Your task to perform on an android device: Open Chrome and go to the settings page Image 0: 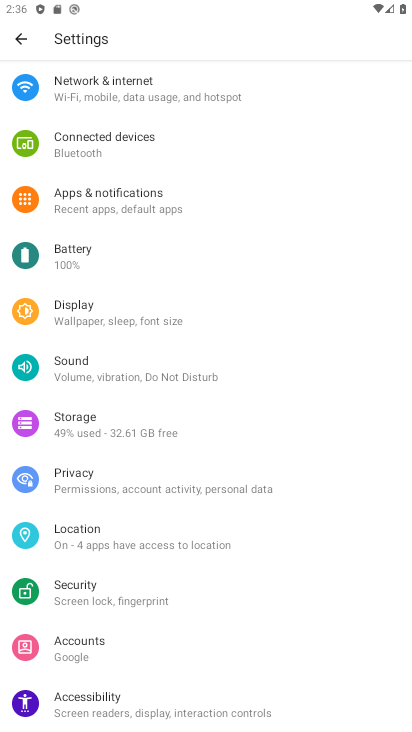
Step 0: press home button
Your task to perform on an android device: Open Chrome and go to the settings page Image 1: 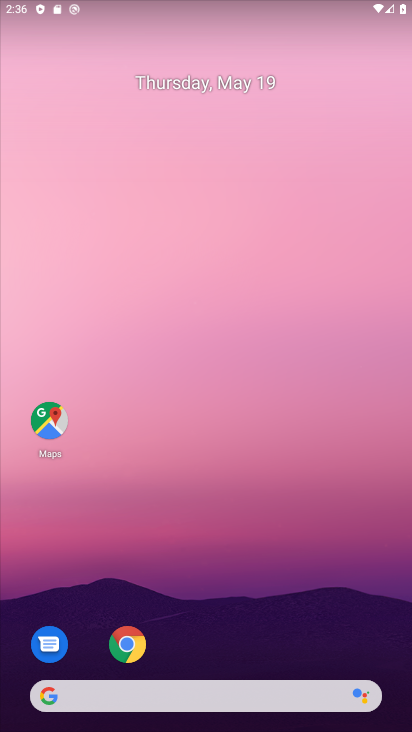
Step 1: drag from (244, 595) to (214, 197)
Your task to perform on an android device: Open Chrome and go to the settings page Image 2: 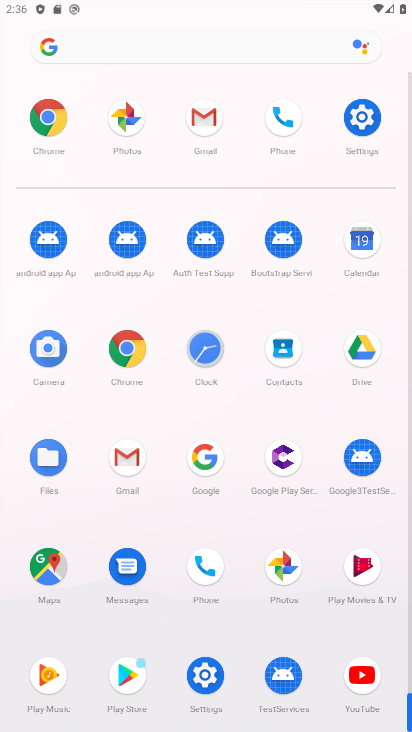
Step 2: click (42, 111)
Your task to perform on an android device: Open Chrome and go to the settings page Image 3: 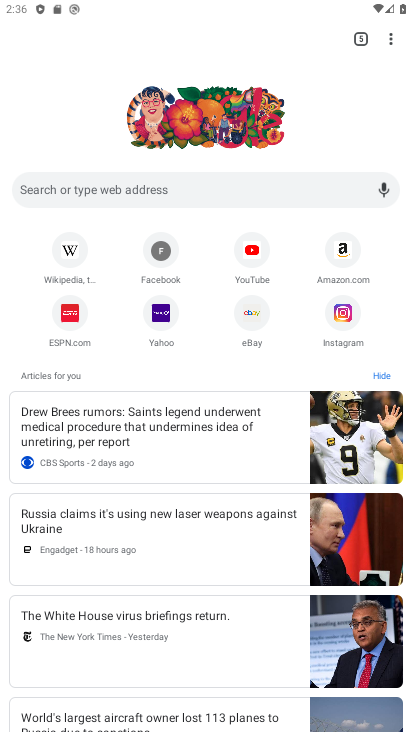
Step 3: click (386, 46)
Your task to perform on an android device: Open Chrome and go to the settings page Image 4: 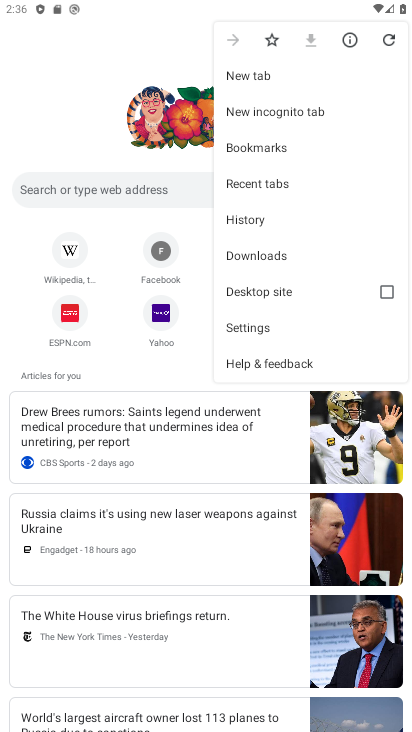
Step 4: click (252, 256)
Your task to perform on an android device: Open Chrome and go to the settings page Image 5: 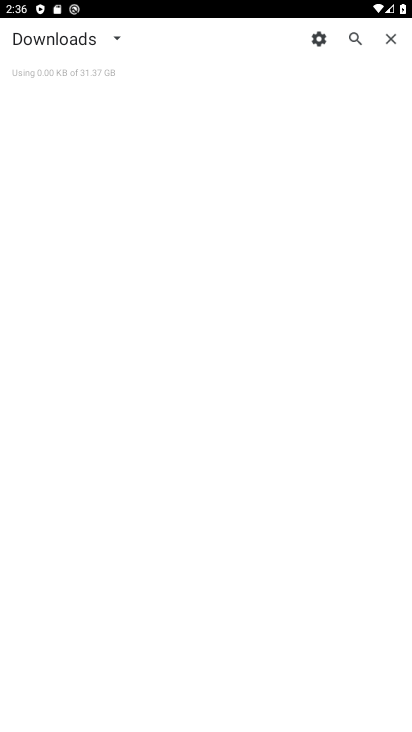
Step 5: click (385, 32)
Your task to perform on an android device: Open Chrome and go to the settings page Image 6: 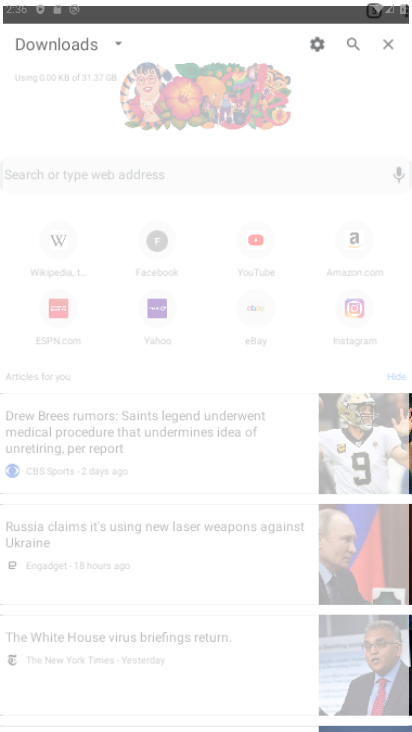
Step 6: task complete